Your task to perform on an android device: Go to settings Image 0: 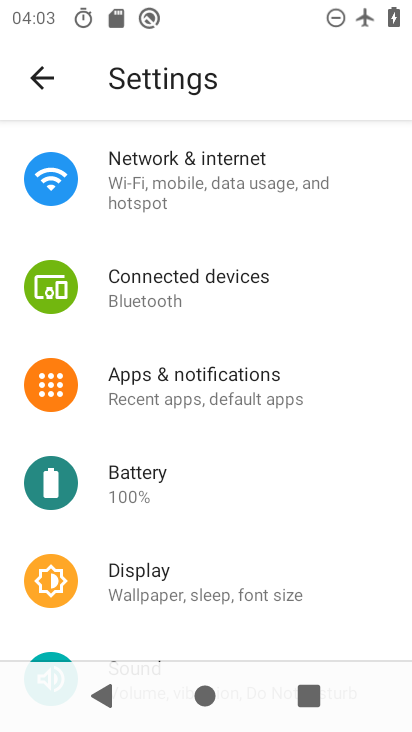
Step 0: drag from (191, 560) to (286, 106)
Your task to perform on an android device: Go to settings Image 1: 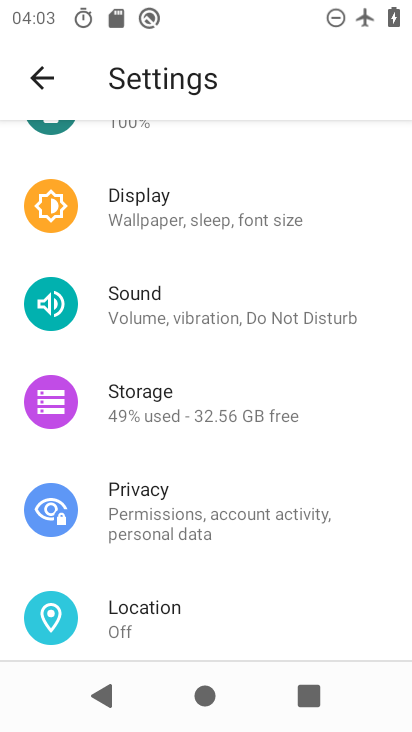
Step 1: task complete